Your task to perform on an android device: Open my contact list Image 0: 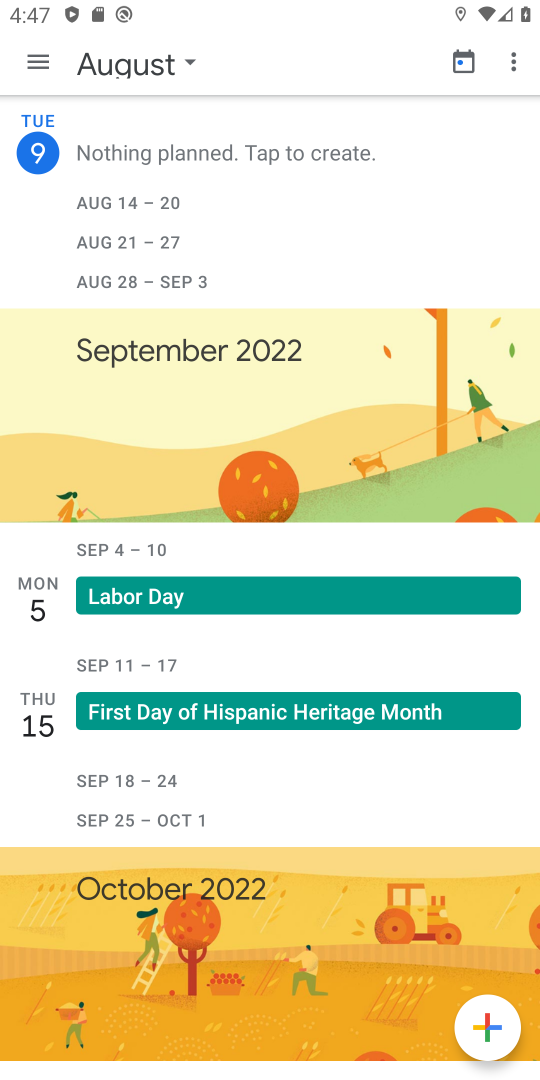
Step 0: press back button
Your task to perform on an android device: Open my contact list Image 1: 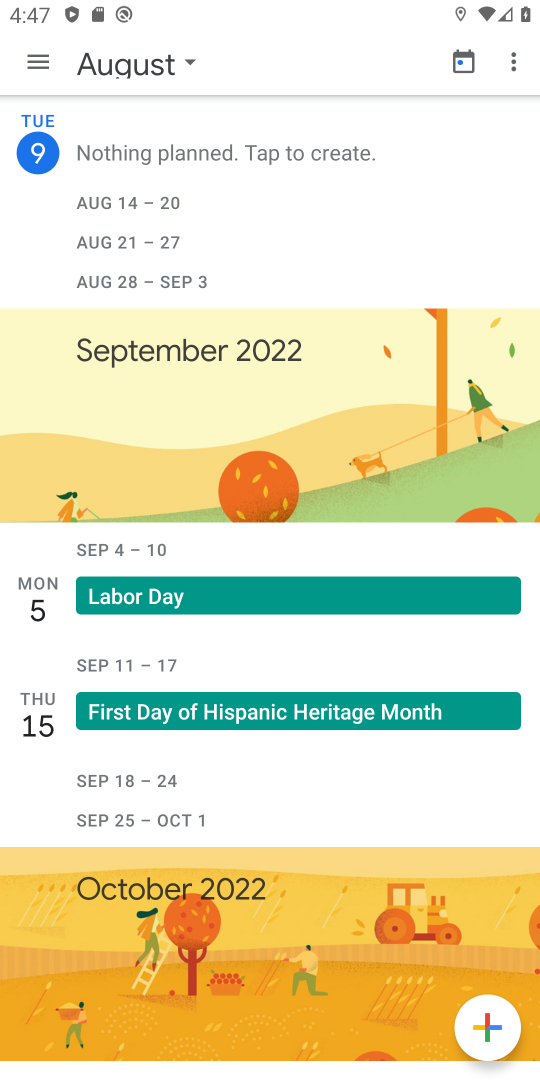
Step 1: press back button
Your task to perform on an android device: Open my contact list Image 2: 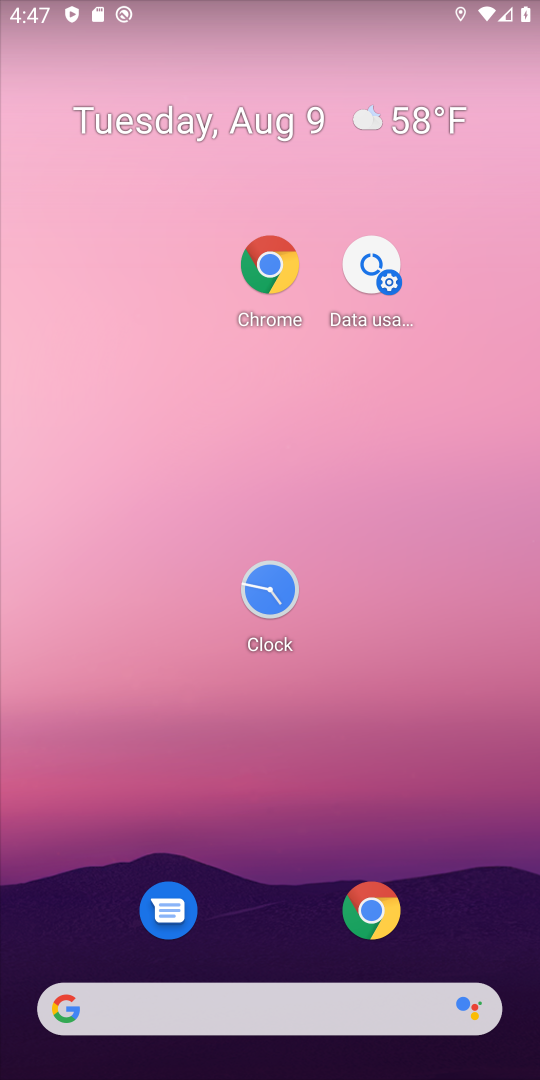
Step 2: press back button
Your task to perform on an android device: Open my contact list Image 3: 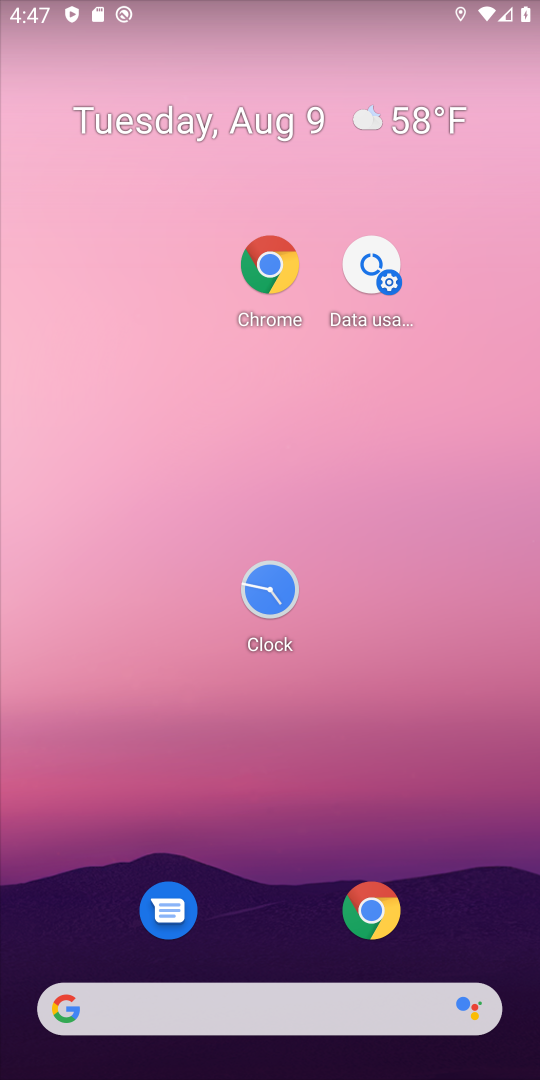
Step 3: press back button
Your task to perform on an android device: Open my contact list Image 4: 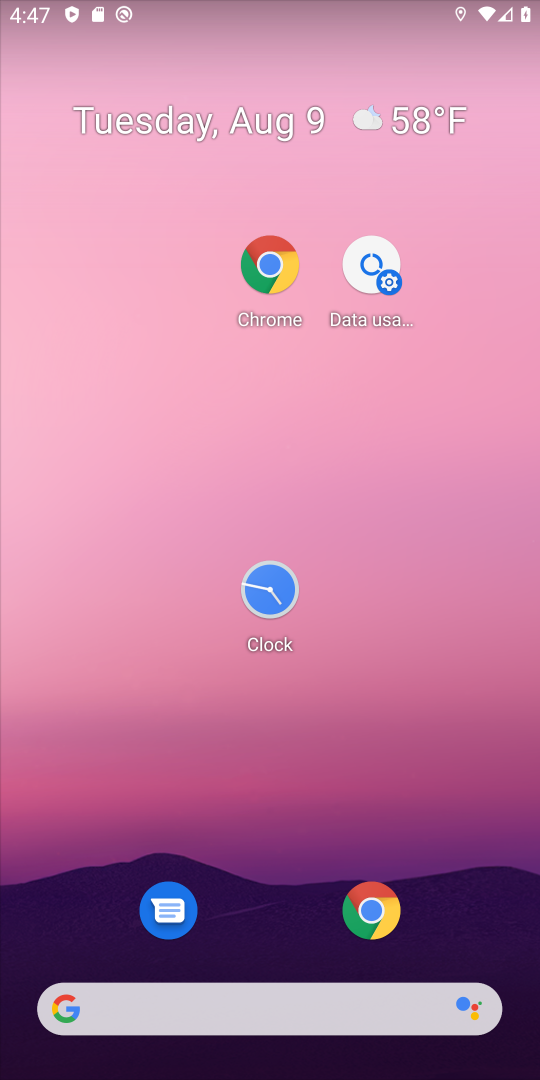
Step 4: drag from (333, 1027) to (293, 271)
Your task to perform on an android device: Open my contact list Image 5: 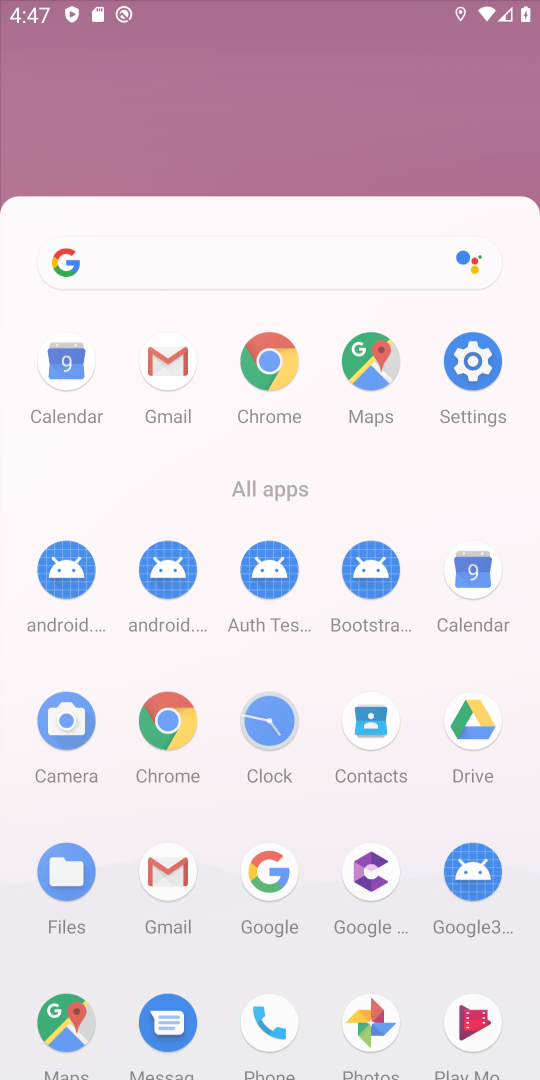
Step 5: click (254, 458)
Your task to perform on an android device: Open my contact list Image 6: 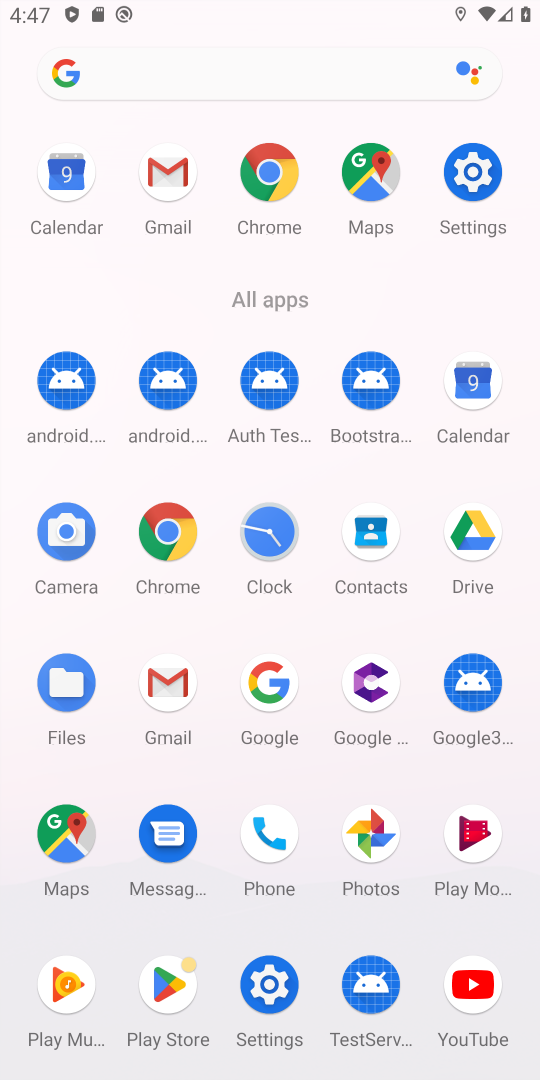
Step 6: click (369, 536)
Your task to perform on an android device: Open my contact list Image 7: 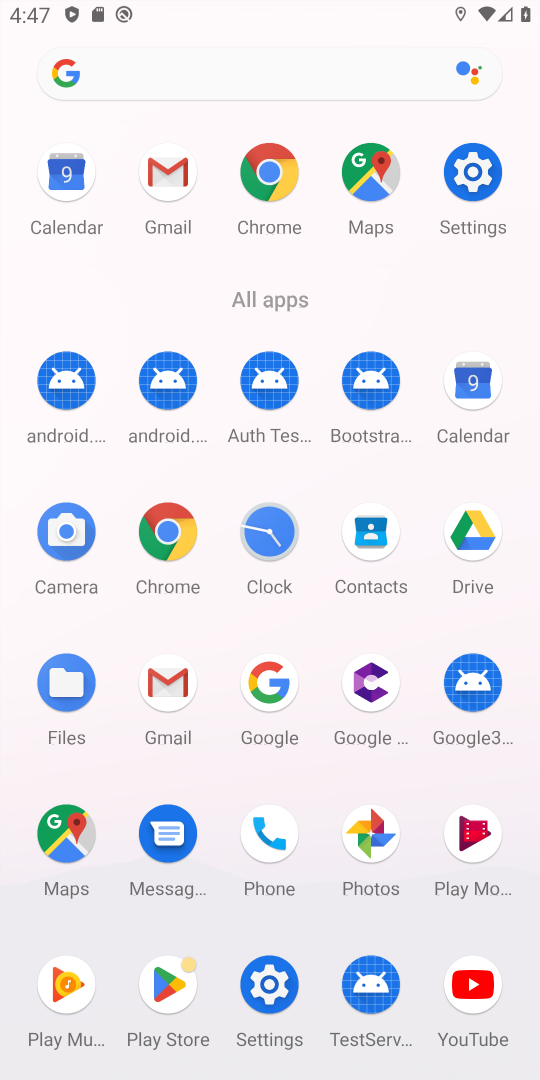
Step 7: click (374, 539)
Your task to perform on an android device: Open my contact list Image 8: 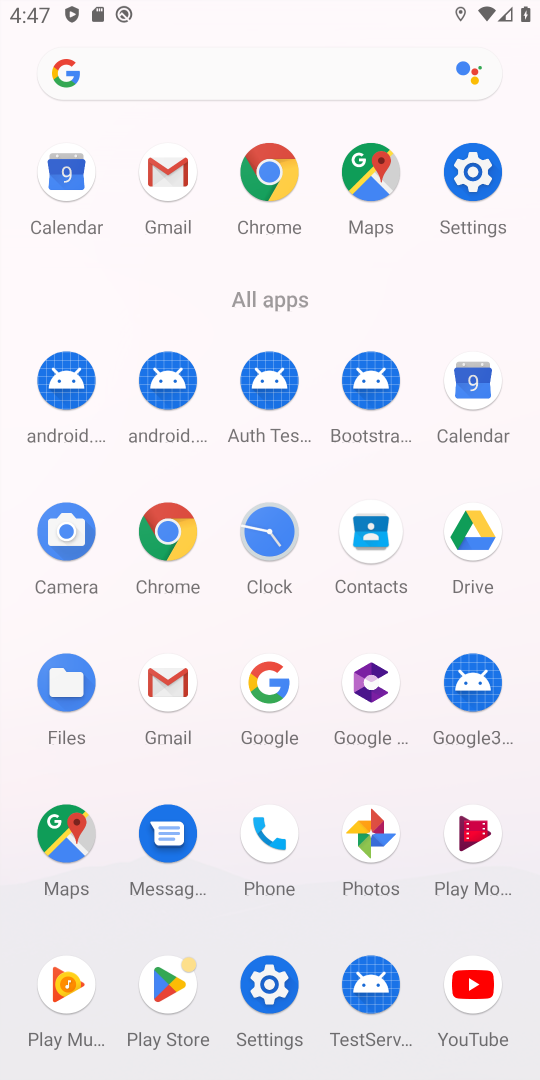
Step 8: click (374, 539)
Your task to perform on an android device: Open my contact list Image 9: 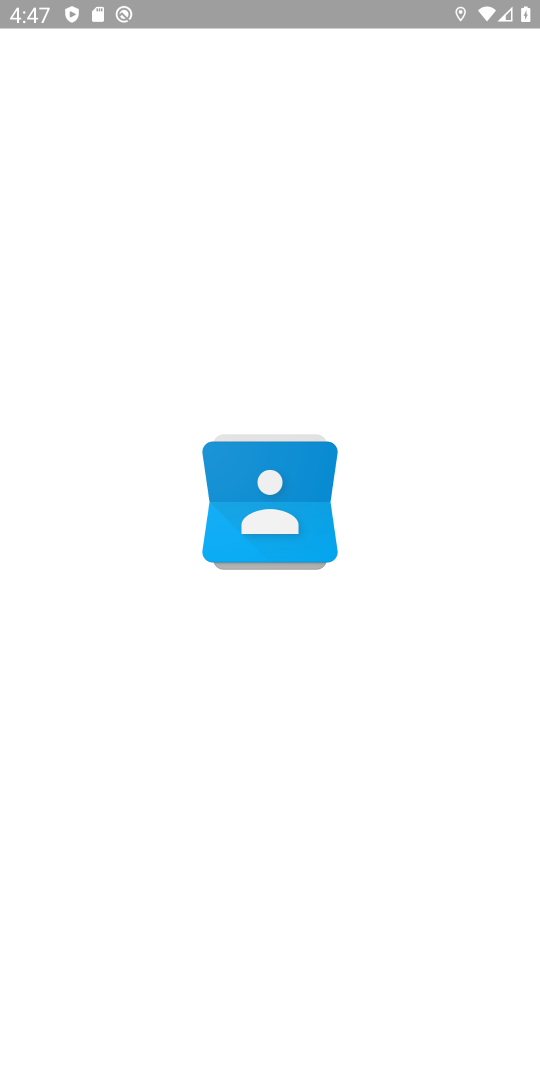
Step 9: click (378, 525)
Your task to perform on an android device: Open my contact list Image 10: 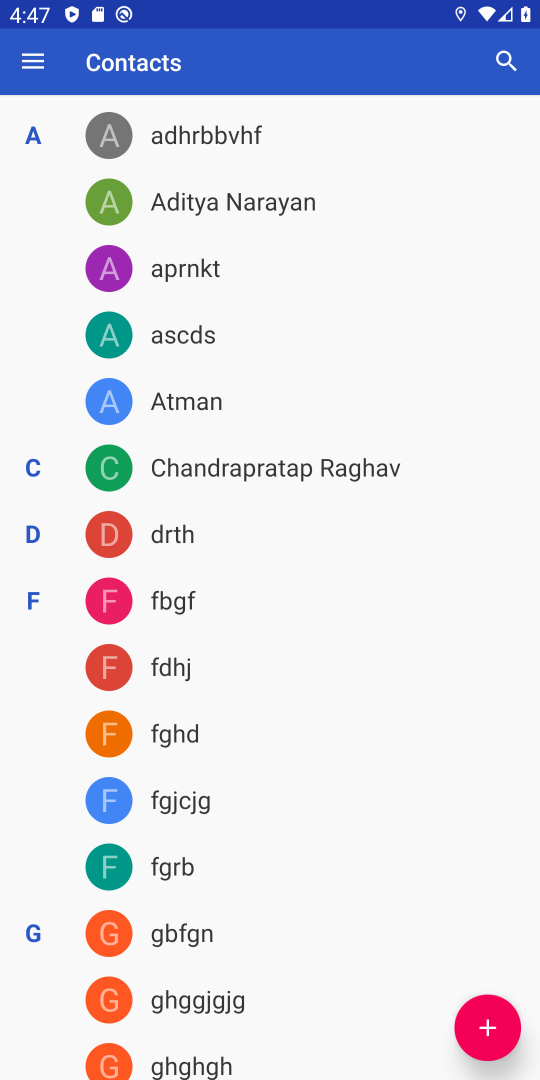
Step 10: task complete